Your task to perform on an android device: change your default location settings in chrome Image 0: 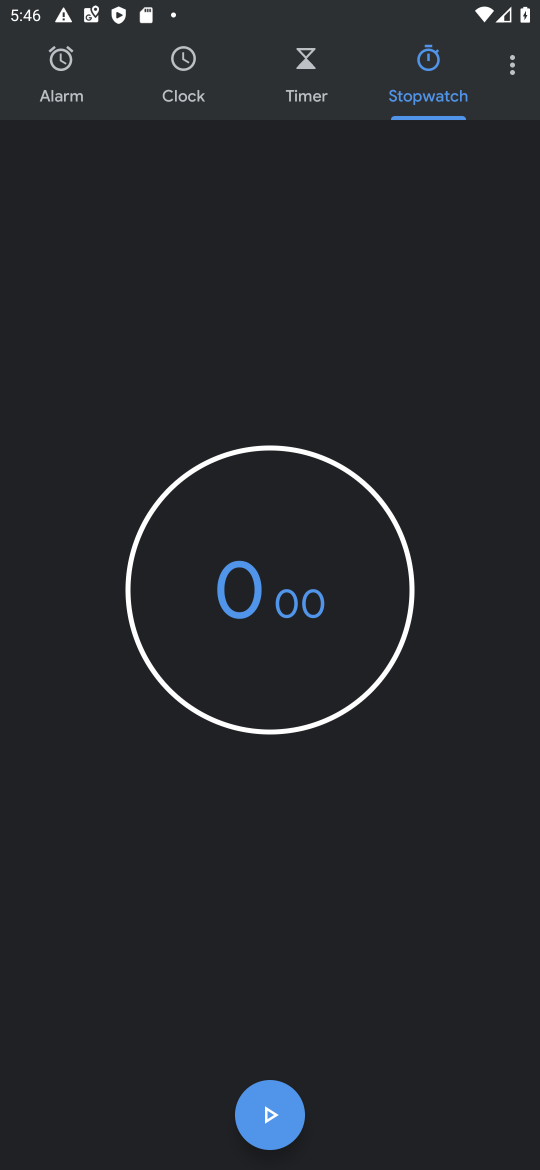
Step 0: press home button
Your task to perform on an android device: change your default location settings in chrome Image 1: 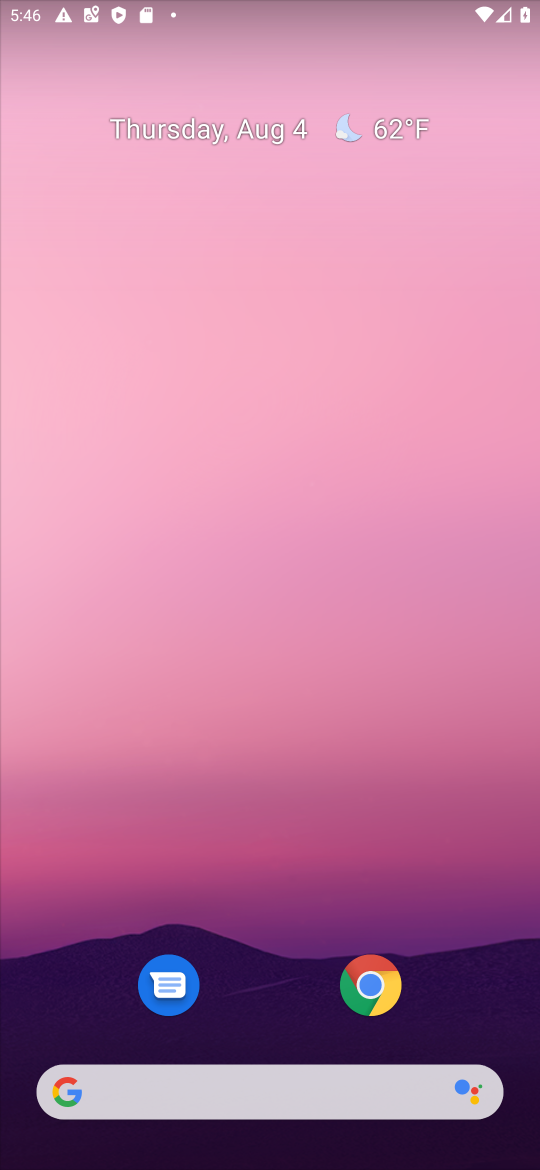
Step 1: click (389, 983)
Your task to perform on an android device: change your default location settings in chrome Image 2: 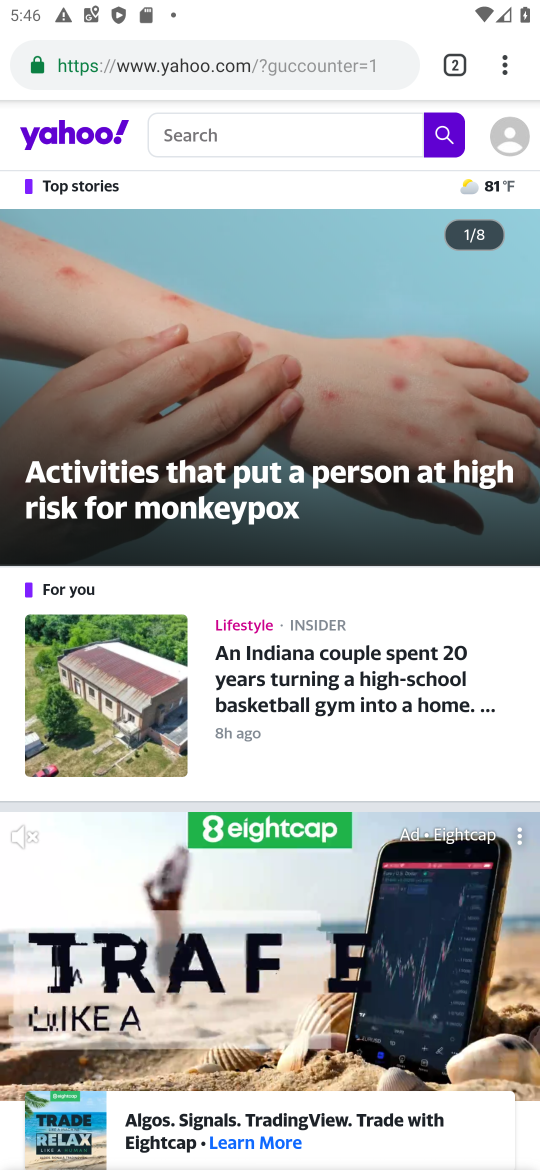
Step 2: drag from (506, 61) to (307, 849)
Your task to perform on an android device: change your default location settings in chrome Image 3: 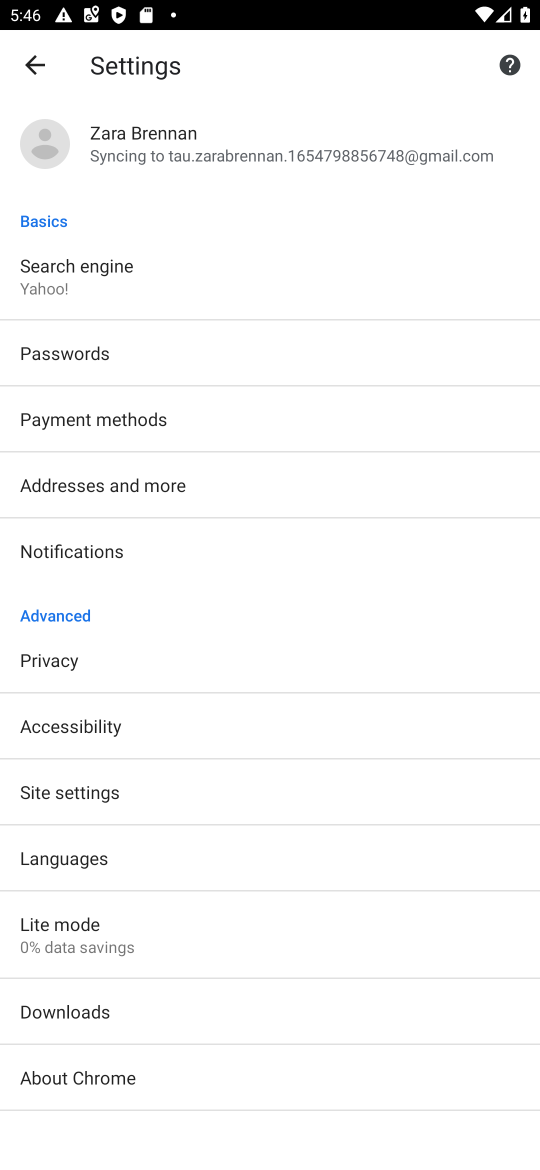
Step 3: click (101, 795)
Your task to perform on an android device: change your default location settings in chrome Image 4: 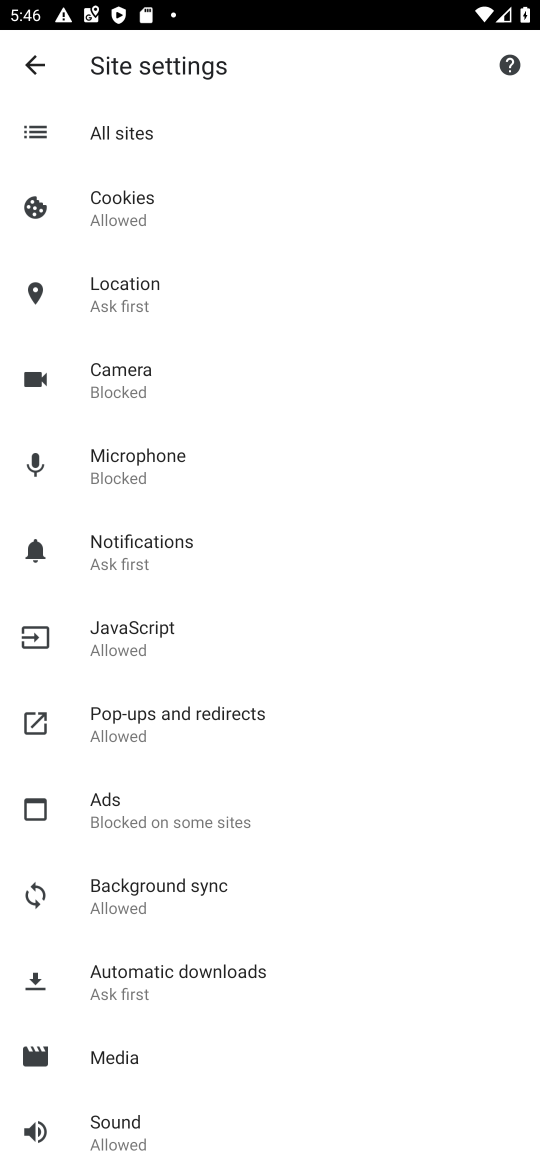
Step 4: click (155, 293)
Your task to perform on an android device: change your default location settings in chrome Image 5: 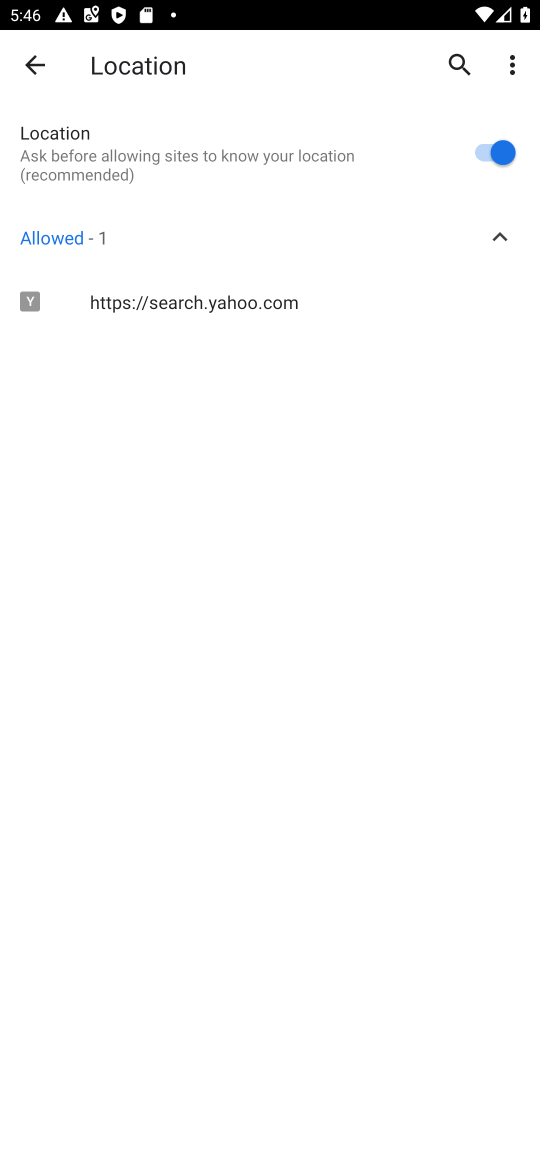
Step 5: click (484, 143)
Your task to perform on an android device: change your default location settings in chrome Image 6: 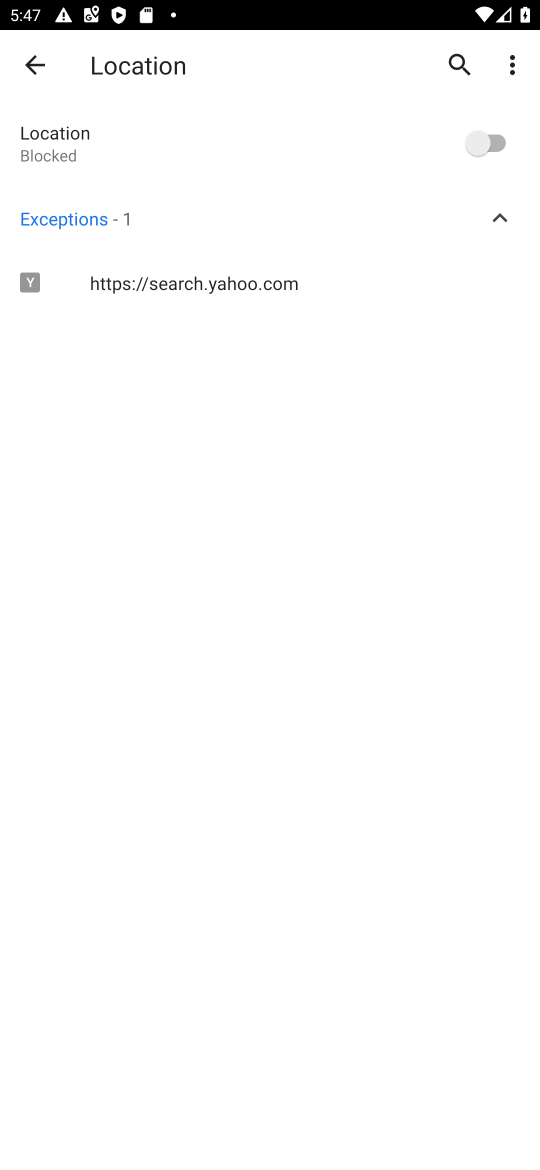
Step 6: task complete